Your task to perform on an android device: Search for pizza restaurants on Maps Image 0: 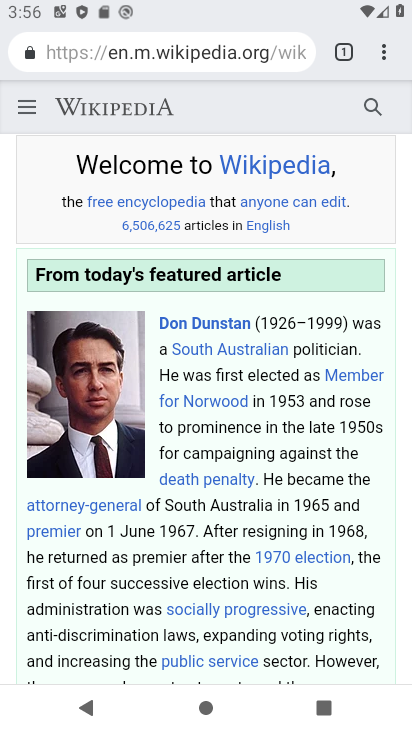
Step 0: press home button
Your task to perform on an android device: Search for pizza restaurants on Maps Image 1: 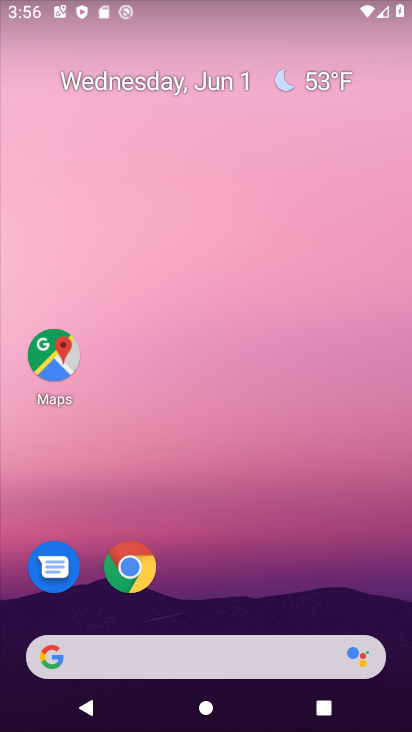
Step 1: click (36, 372)
Your task to perform on an android device: Search for pizza restaurants on Maps Image 2: 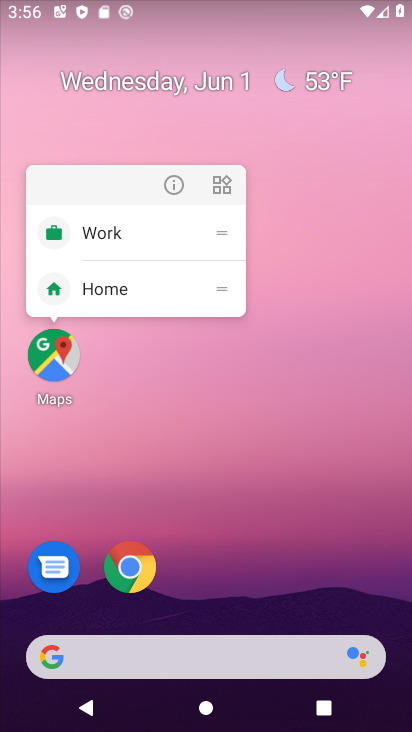
Step 2: click (73, 356)
Your task to perform on an android device: Search for pizza restaurants on Maps Image 3: 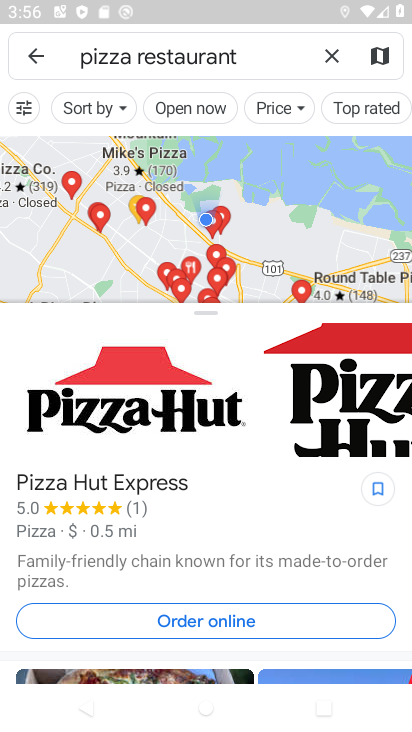
Step 3: task complete